Your task to perform on an android device: open sync settings in chrome Image 0: 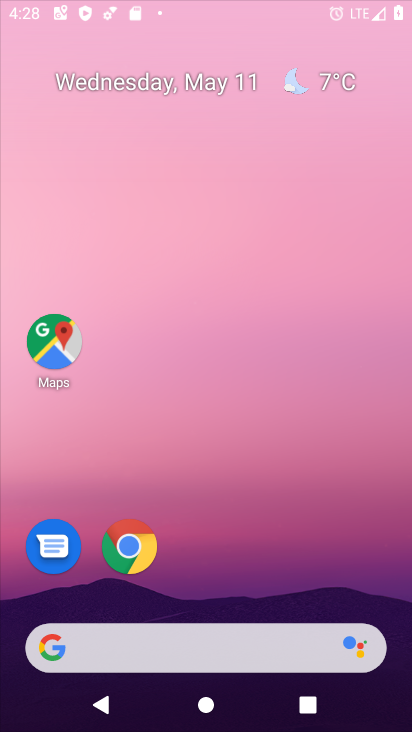
Step 0: drag from (291, 562) to (304, 3)
Your task to perform on an android device: open sync settings in chrome Image 1: 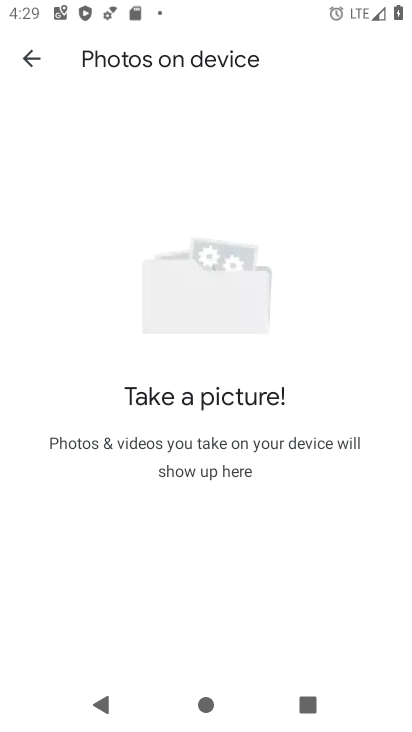
Step 1: press home button
Your task to perform on an android device: open sync settings in chrome Image 2: 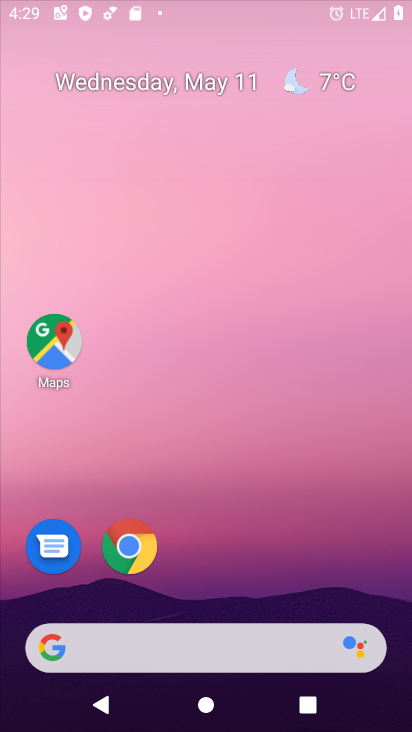
Step 2: drag from (282, 636) to (390, 1)
Your task to perform on an android device: open sync settings in chrome Image 3: 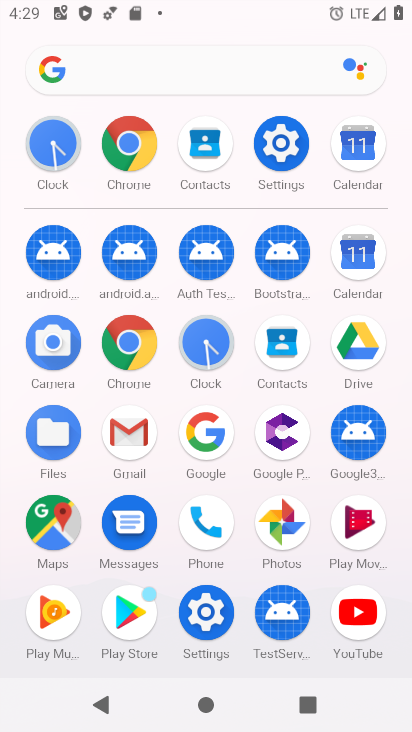
Step 3: click (110, 345)
Your task to perform on an android device: open sync settings in chrome Image 4: 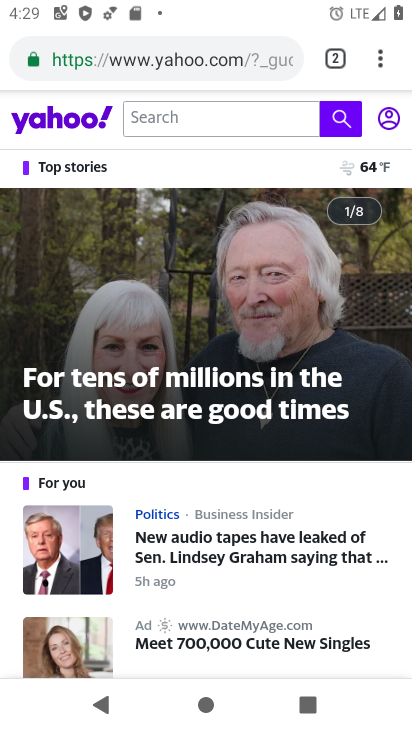
Step 4: drag from (379, 47) to (194, 584)
Your task to perform on an android device: open sync settings in chrome Image 5: 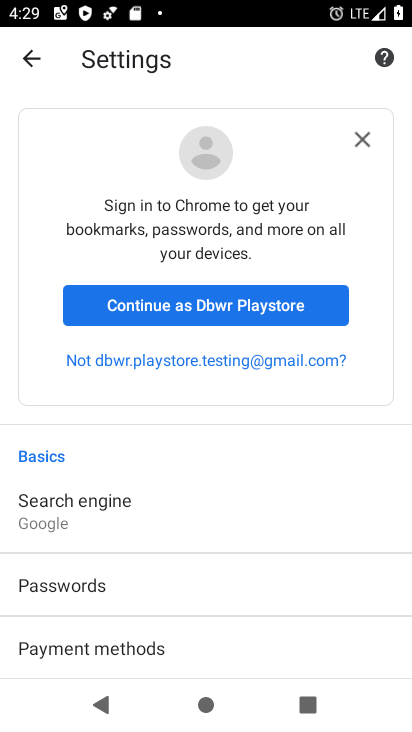
Step 5: drag from (72, 671) to (200, 153)
Your task to perform on an android device: open sync settings in chrome Image 6: 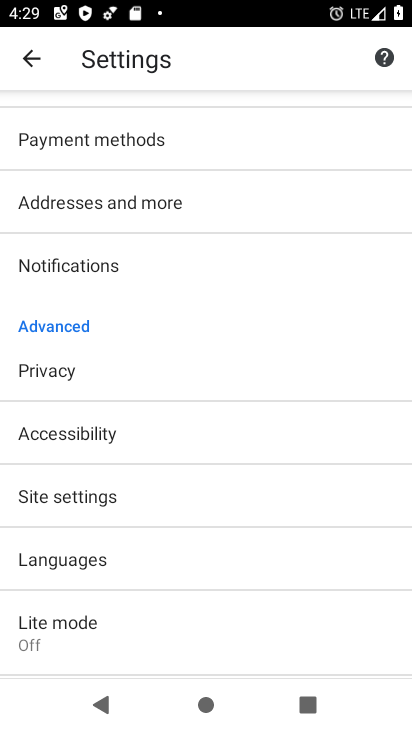
Step 6: click (153, 504)
Your task to perform on an android device: open sync settings in chrome Image 7: 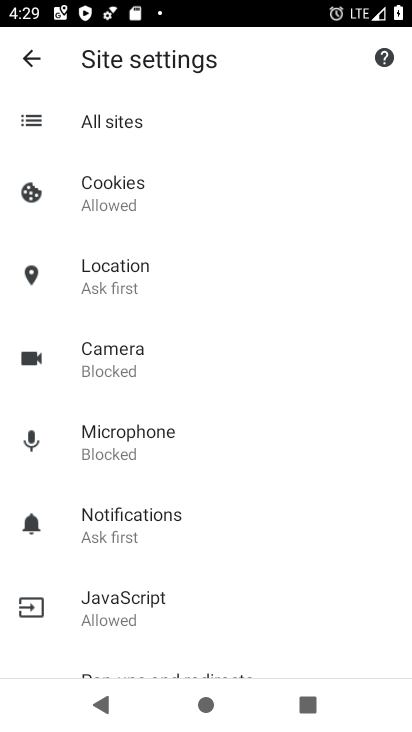
Step 7: drag from (132, 613) to (213, 180)
Your task to perform on an android device: open sync settings in chrome Image 8: 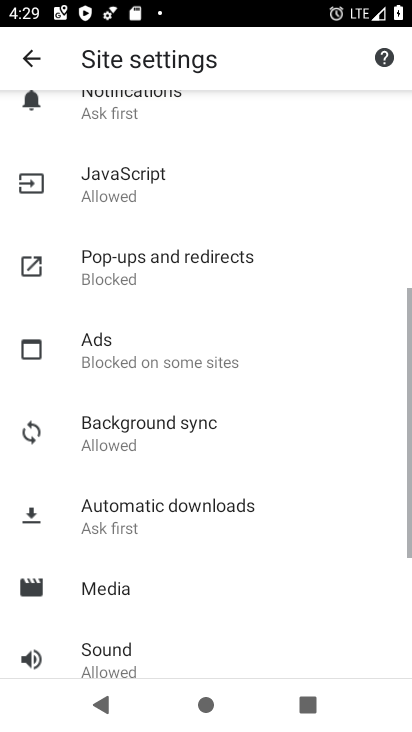
Step 8: click (179, 433)
Your task to perform on an android device: open sync settings in chrome Image 9: 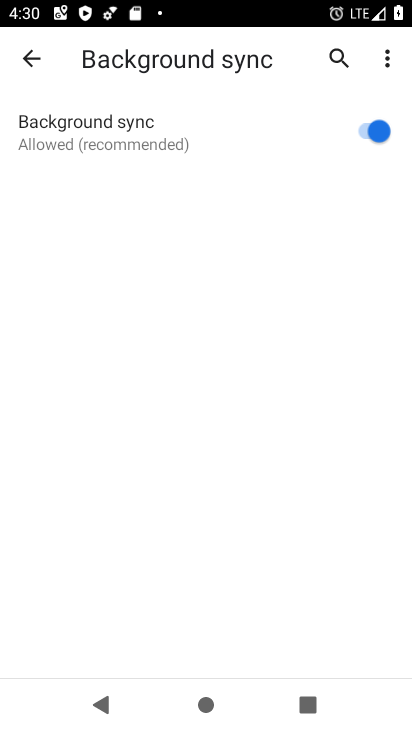
Step 9: task complete